Your task to perform on an android device: check storage Image 0: 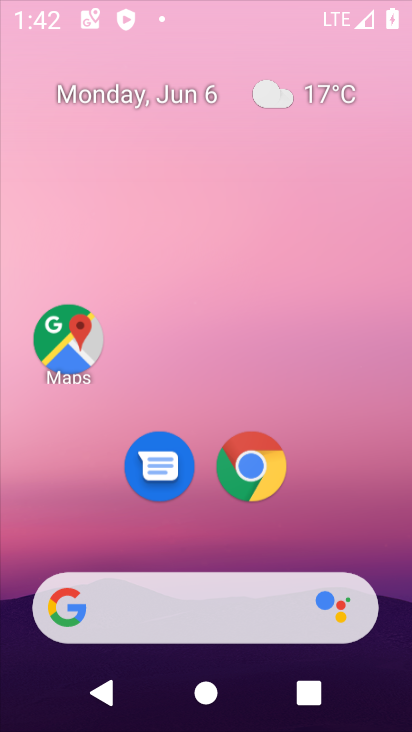
Step 0: press home button
Your task to perform on an android device: check storage Image 1: 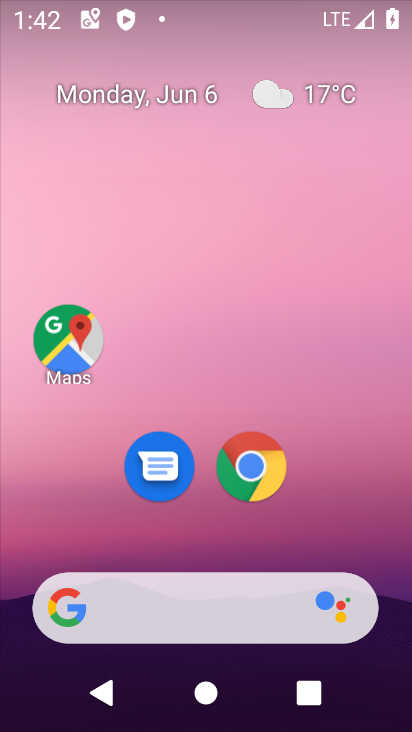
Step 1: drag from (216, 502) to (239, 43)
Your task to perform on an android device: check storage Image 2: 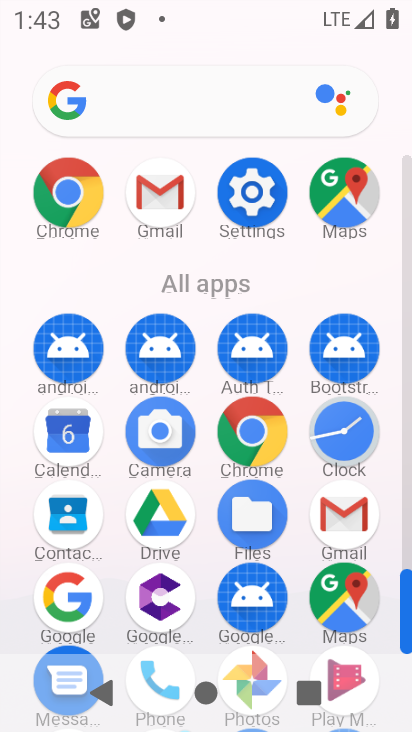
Step 2: click (250, 188)
Your task to perform on an android device: check storage Image 3: 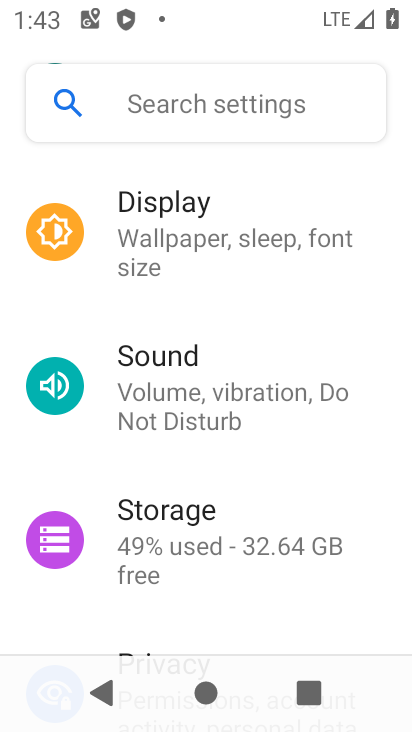
Step 3: click (178, 521)
Your task to perform on an android device: check storage Image 4: 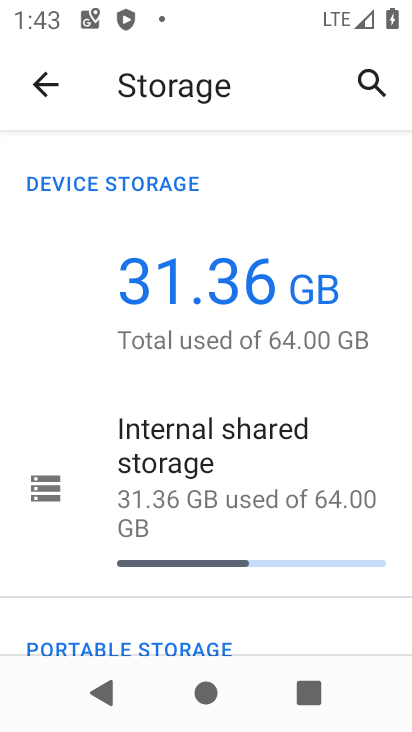
Step 4: task complete